Your task to perform on an android device: check android version Image 0: 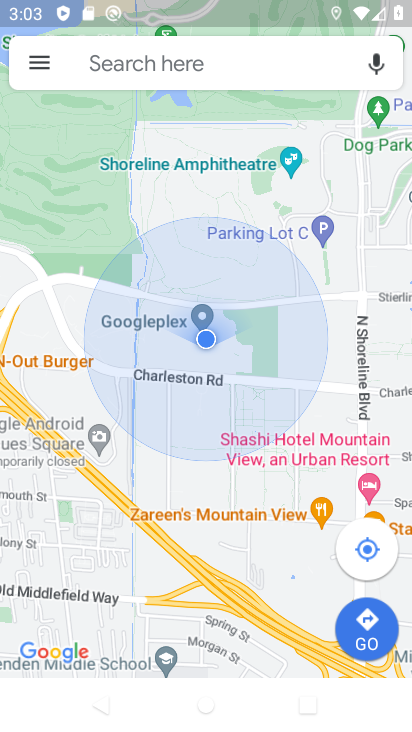
Step 0: click (37, 55)
Your task to perform on an android device: check android version Image 1: 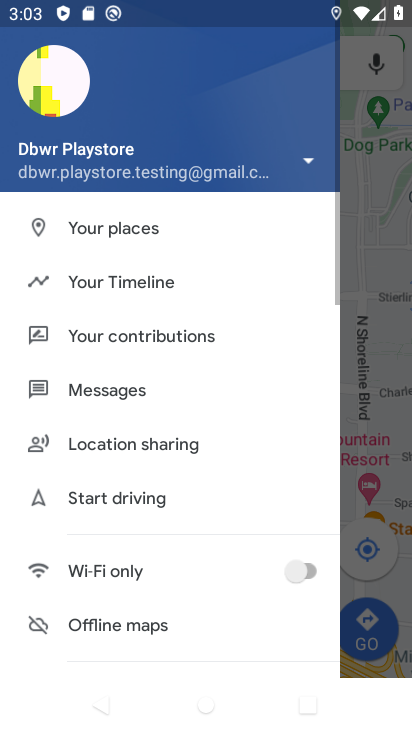
Step 1: press home button
Your task to perform on an android device: check android version Image 2: 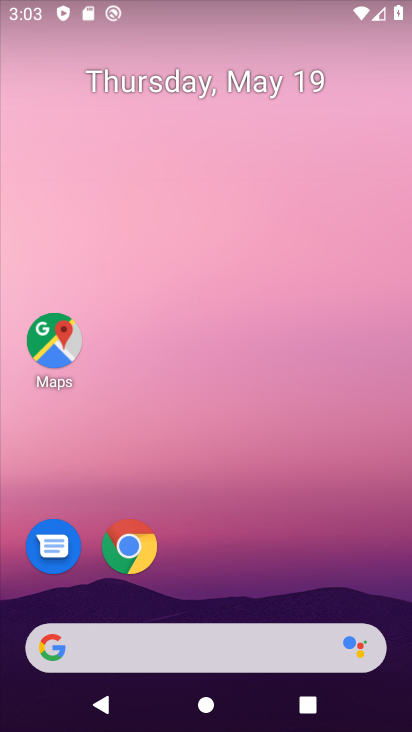
Step 2: drag from (227, 604) to (288, 39)
Your task to perform on an android device: check android version Image 3: 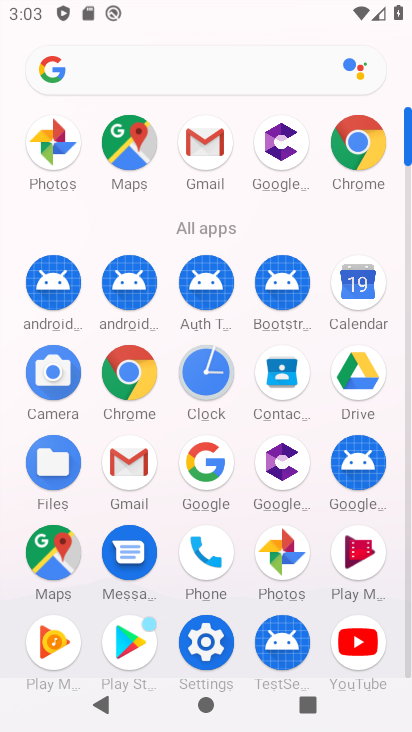
Step 3: click (209, 633)
Your task to perform on an android device: check android version Image 4: 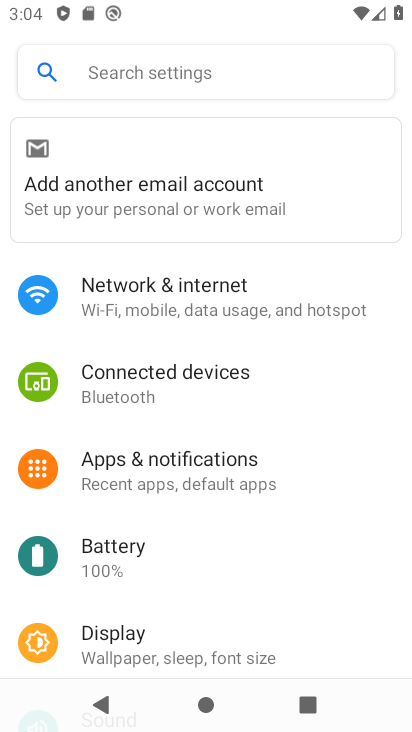
Step 4: drag from (205, 563) to (218, 99)
Your task to perform on an android device: check android version Image 5: 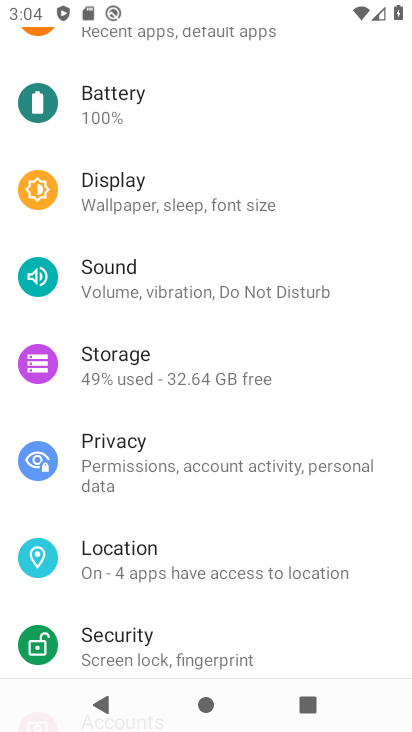
Step 5: drag from (201, 632) to (234, 56)
Your task to perform on an android device: check android version Image 6: 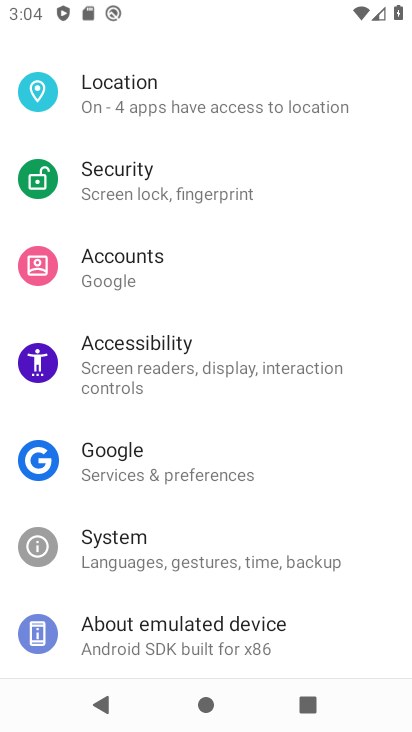
Step 6: click (208, 642)
Your task to perform on an android device: check android version Image 7: 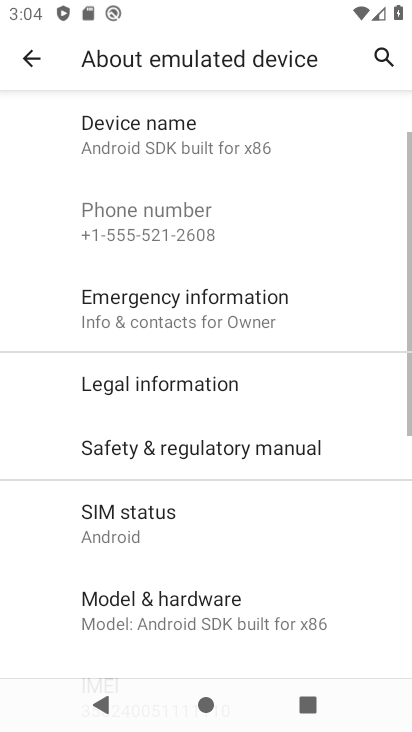
Step 7: drag from (195, 574) to (216, 125)
Your task to perform on an android device: check android version Image 8: 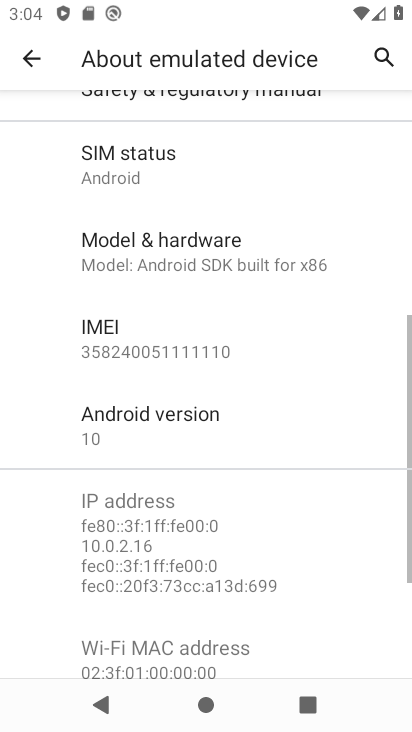
Step 8: click (146, 437)
Your task to perform on an android device: check android version Image 9: 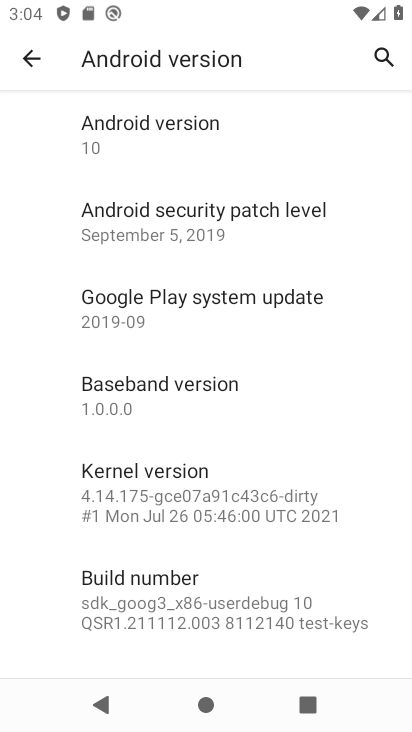
Step 9: task complete